Your task to perform on an android device: see creations saved in the google photos Image 0: 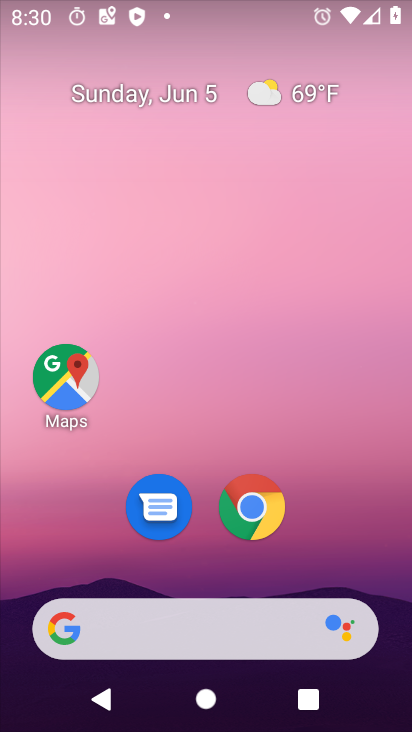
Step 0: drag from (357, 570) to (243, 38)
Your task to perform on an android device: see creations saved in the google photos Image 1: 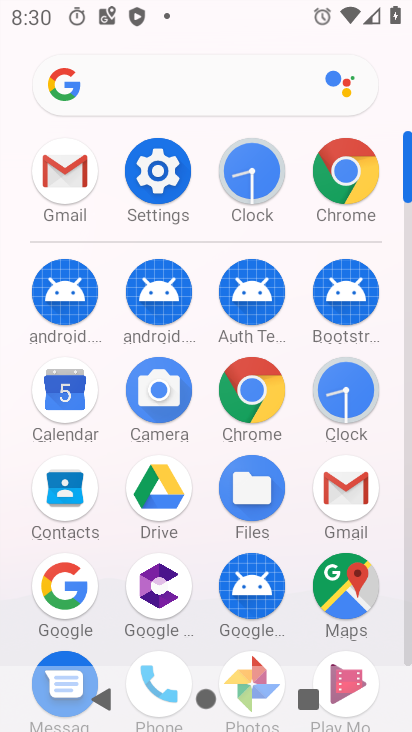
Step 1: drag from (18, 558) to (12, 227)
Your task to perform on an android device: see creations saved in the google photos Image 2: 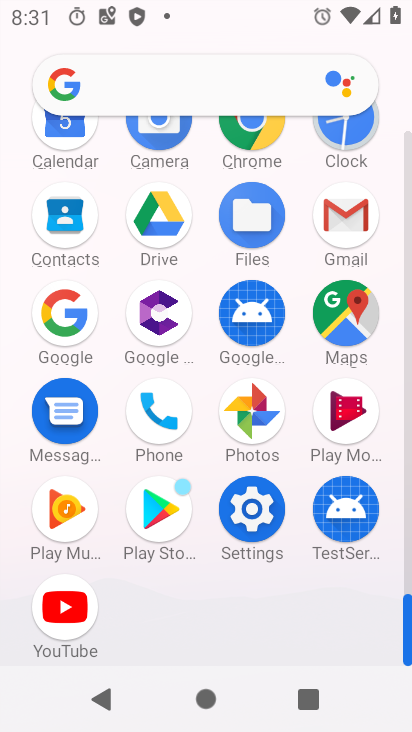
Step 2: click (249, 408)
Your task to perform on an android device: see creations saved in the google photos Image 3: 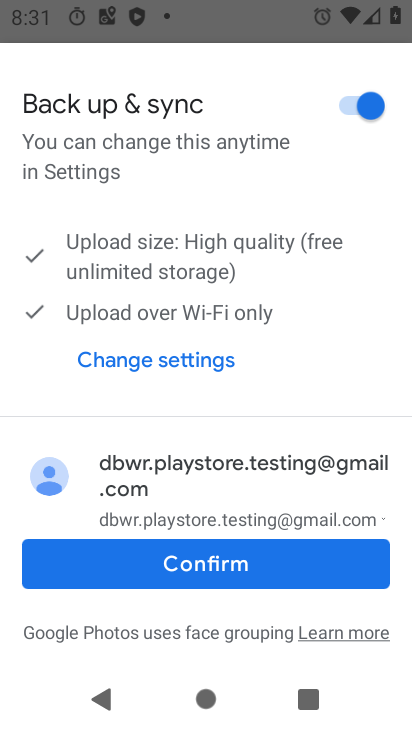
Step 3: click (218, 574)
Your task to perform on an android device: see creations saved in the google photos Image 4: 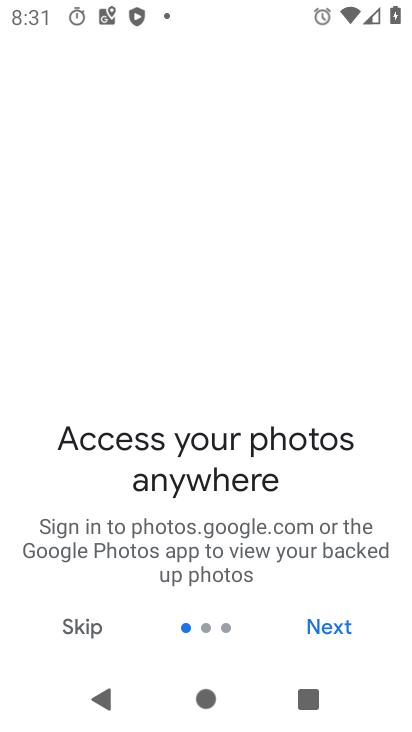
Step 4: click (334, 620)
Your task to perform on an android device: see creations saved in the google photos Image 5: 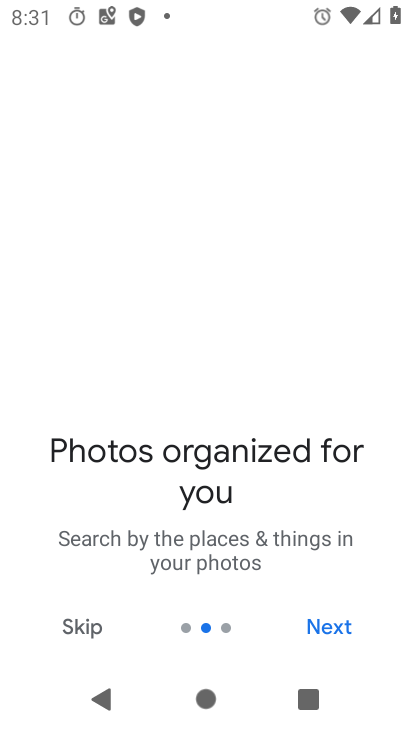
Step 5: click (334, 620)
Your task to perform on an android device: see creations saved in the google photos Image 6: 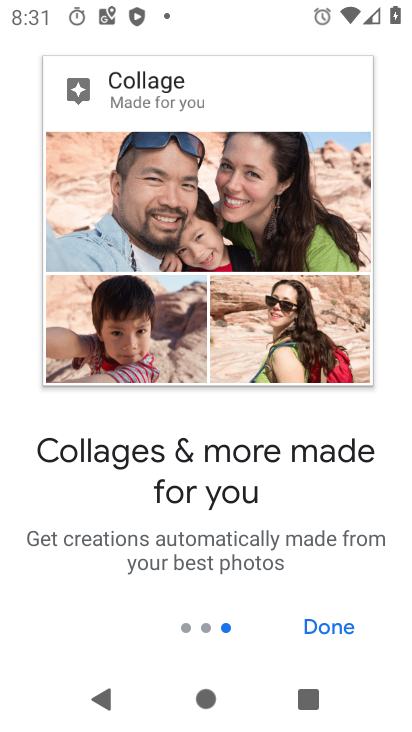
Step 6: click (334, 620)
Your task to perform on an android device: see creations saved in the google photos Image 7: 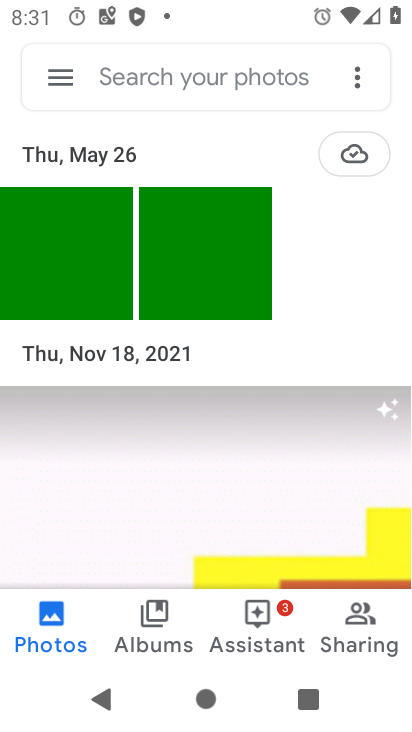
Step 7: task complete